Your task to perform on an android device: Open Chrome and go to settings Image 0: 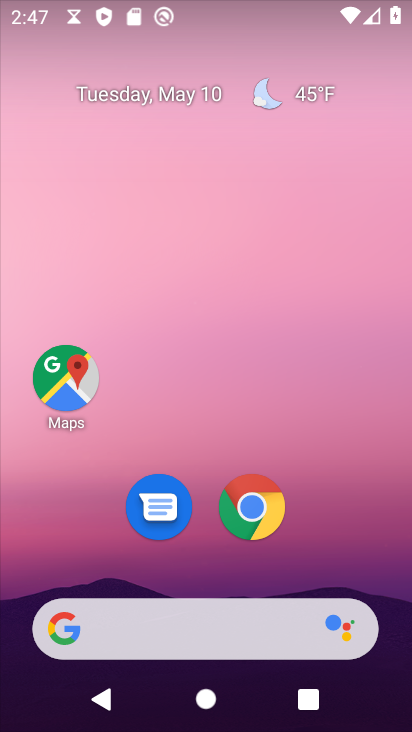
Step 0: click (251, 504)
Your task to perform on an android device: Open Chrome and go to settings Image 1: 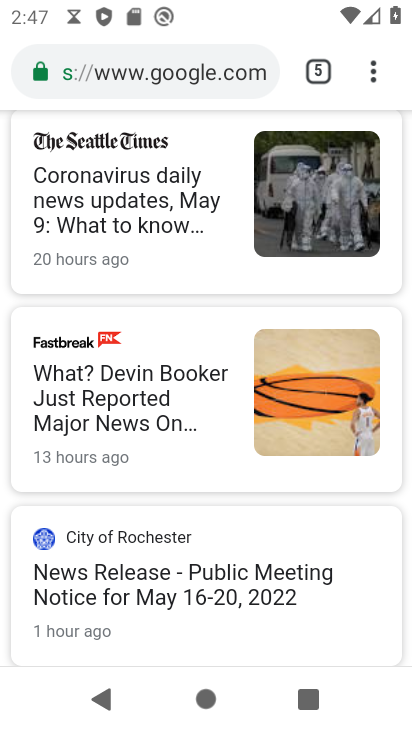
Step 1: click (374, 74)
Your task to perform on an android device: Open Chrome and go to settings Image 2: 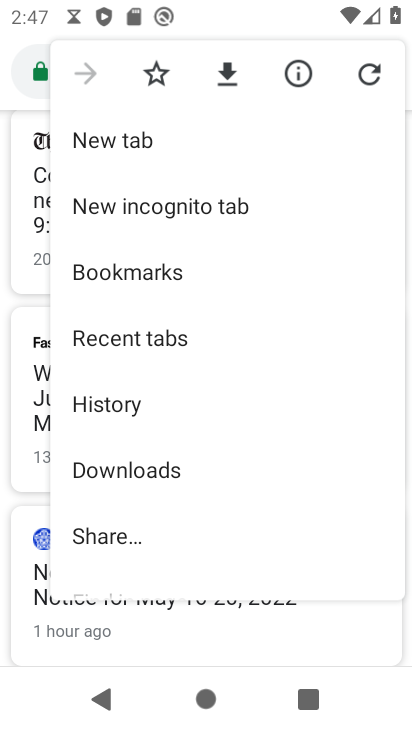
Step 2: drag from (161, 557) to (151, 162)
Your task to perform on an android device: Open Chrome and go to settings Image 3: 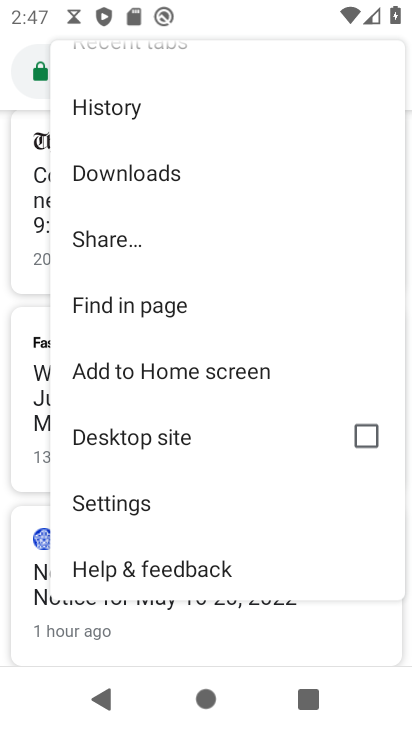
Step 3: click (95, 507)
Your task to perform on an android device: Open Chrome and go to settings Image 4: 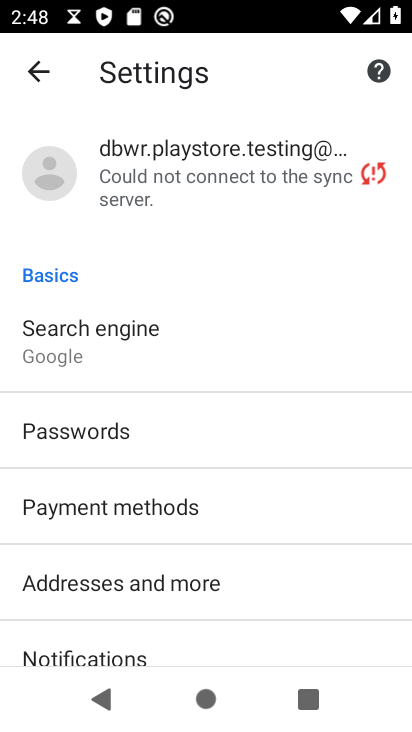
Step 4: task complete